Your task to perform on an android device: turn on sleep mode Image 0: 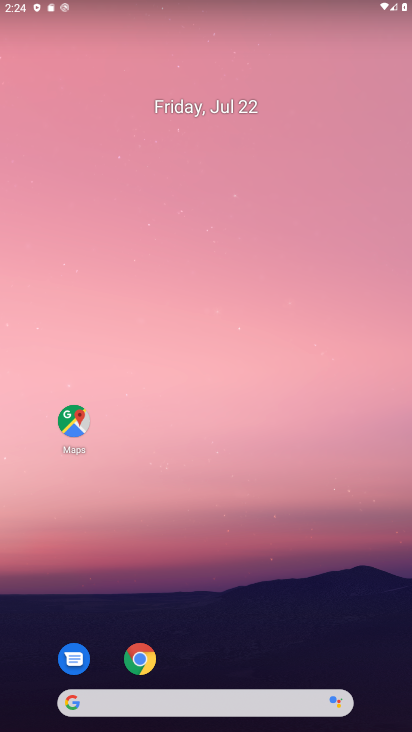
Step 0: drag from (247, 666) to (211, 195)
Your task to perform on an android device: turn on sleep mode Image 1: 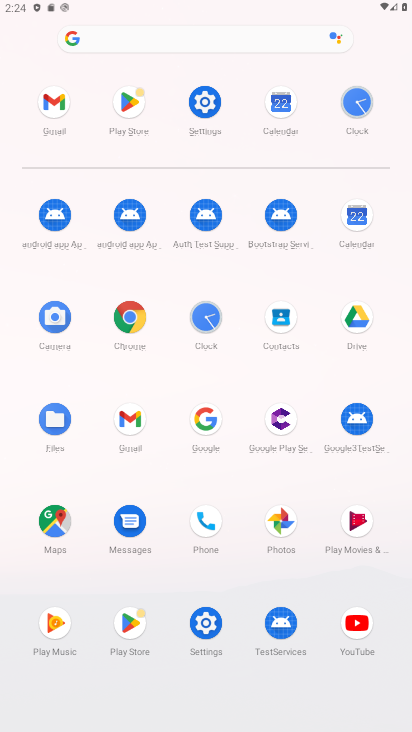
Step 1: click (202, 115)
Your task to perform on an android device: turn on sleep mode Image 2: 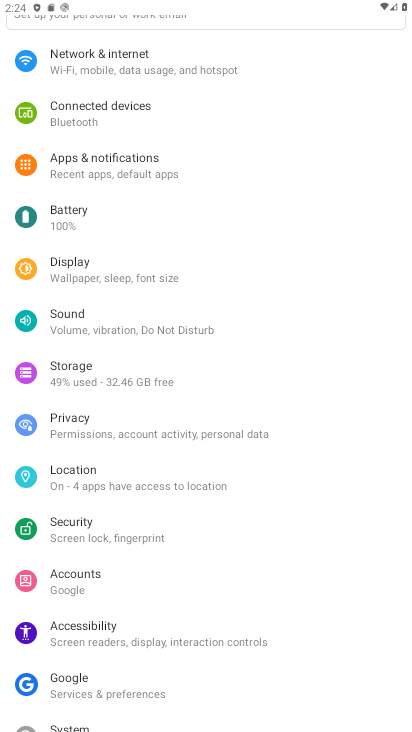
Step 2: click (229, 287)
Your task to perform on an android device: turn on sleep mode Image 3: 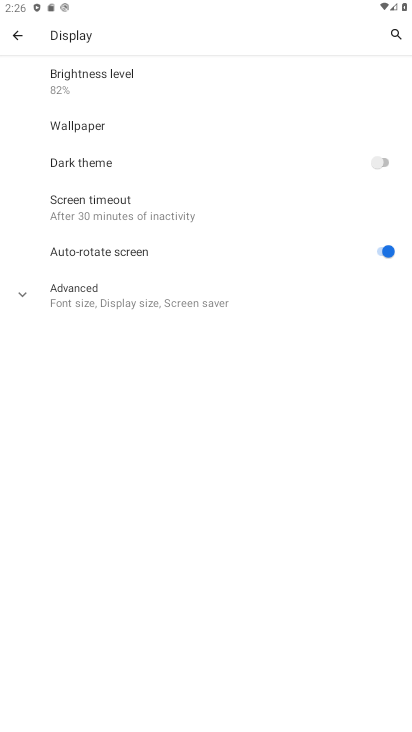
Step 3: task complete